Your task to perform on an android device: See recent photos Image 0: 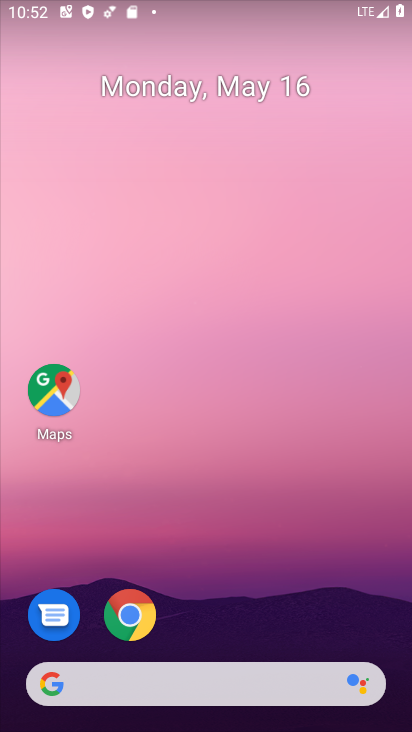
Step 0: drag from (234, 664) to (246, 304)
Your task to perform on an android device: See recent photos Image 1: 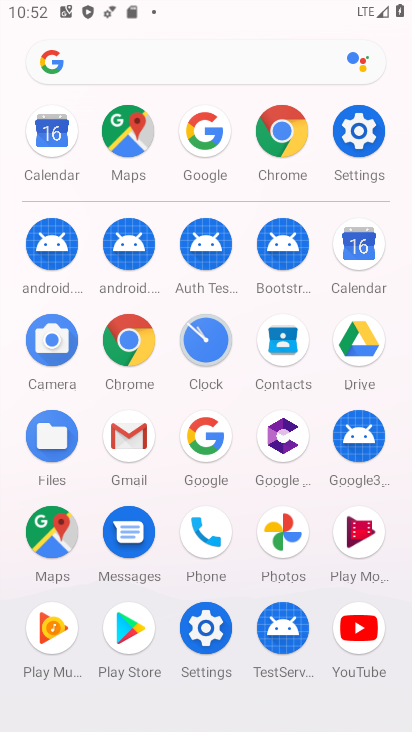
Step 1: click (269, 539)
Your task to perform on an android device: See recent photos Image 2: 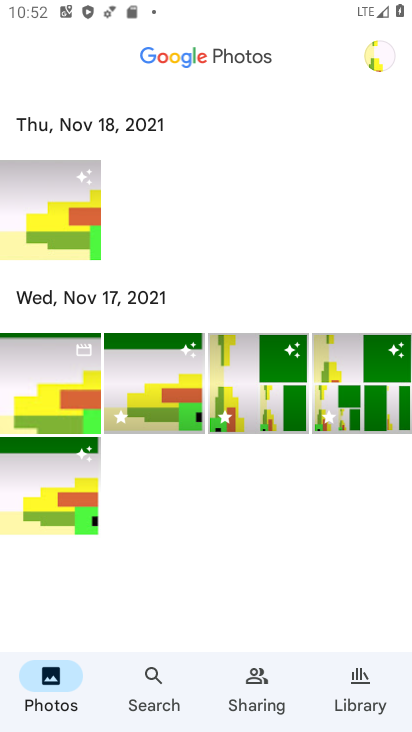
Step 2: task complete